Your task to perform on an android device: clear history in the chrome app Image 0: 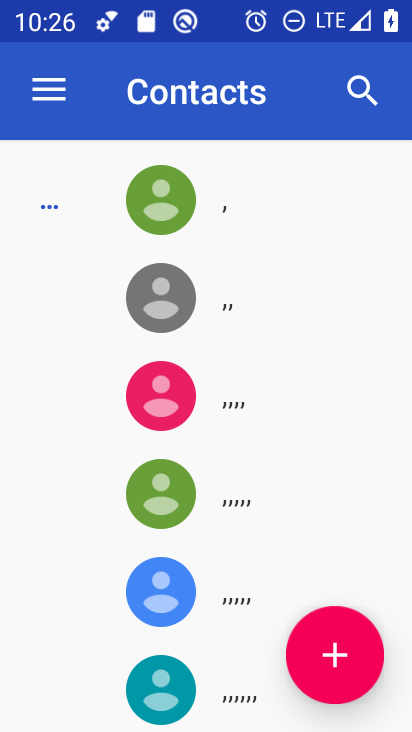
Step 0: press home button
Your task to perform on an android device: clear history in the chrome app Image 1: 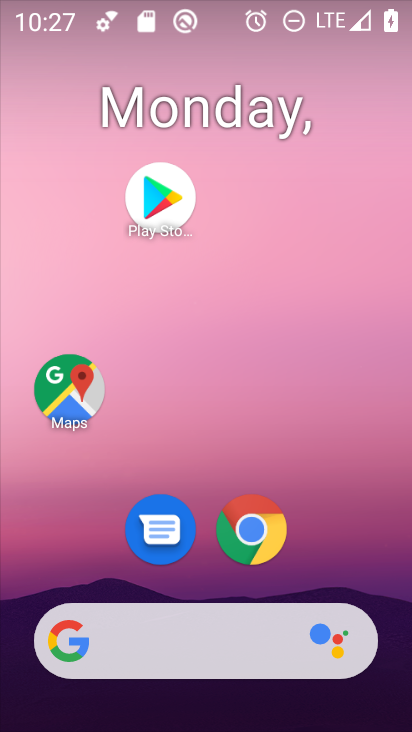
Step 1: click (244, 535)
Your task to perform on an android device: clear history in the chrome app Image 2: 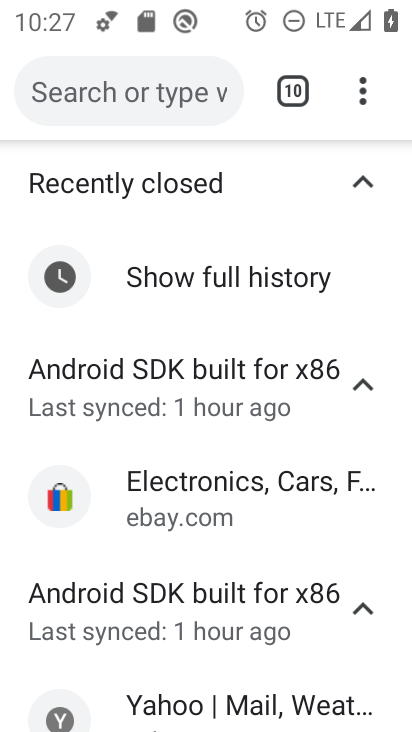
Step 2: click (362, 92)
Your task to perform on an android device: clear history in the chrome app Image 3: 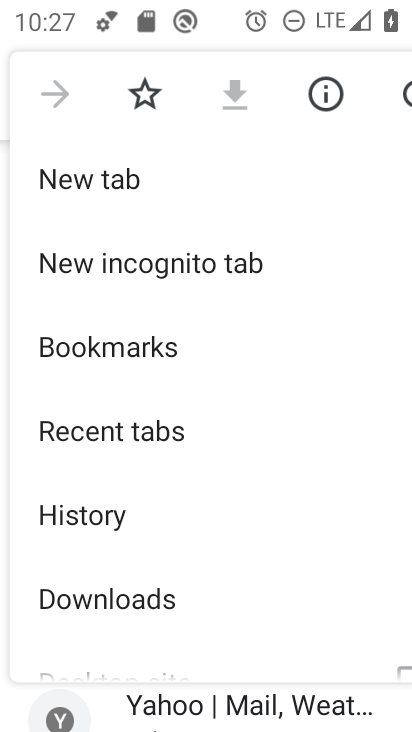
Step 3: click (61, 529)
Your task to perform on an android device: clear history in the chrome app Image 4: 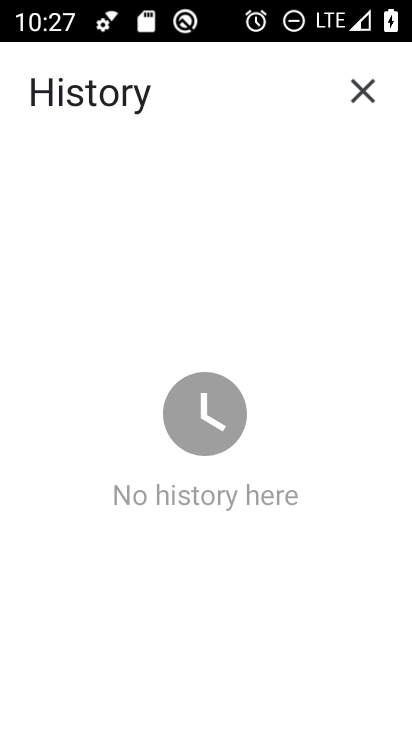
Step 4: task complete